Your task to perform on an android device: Go to calendar. Show me events next week Image 0: 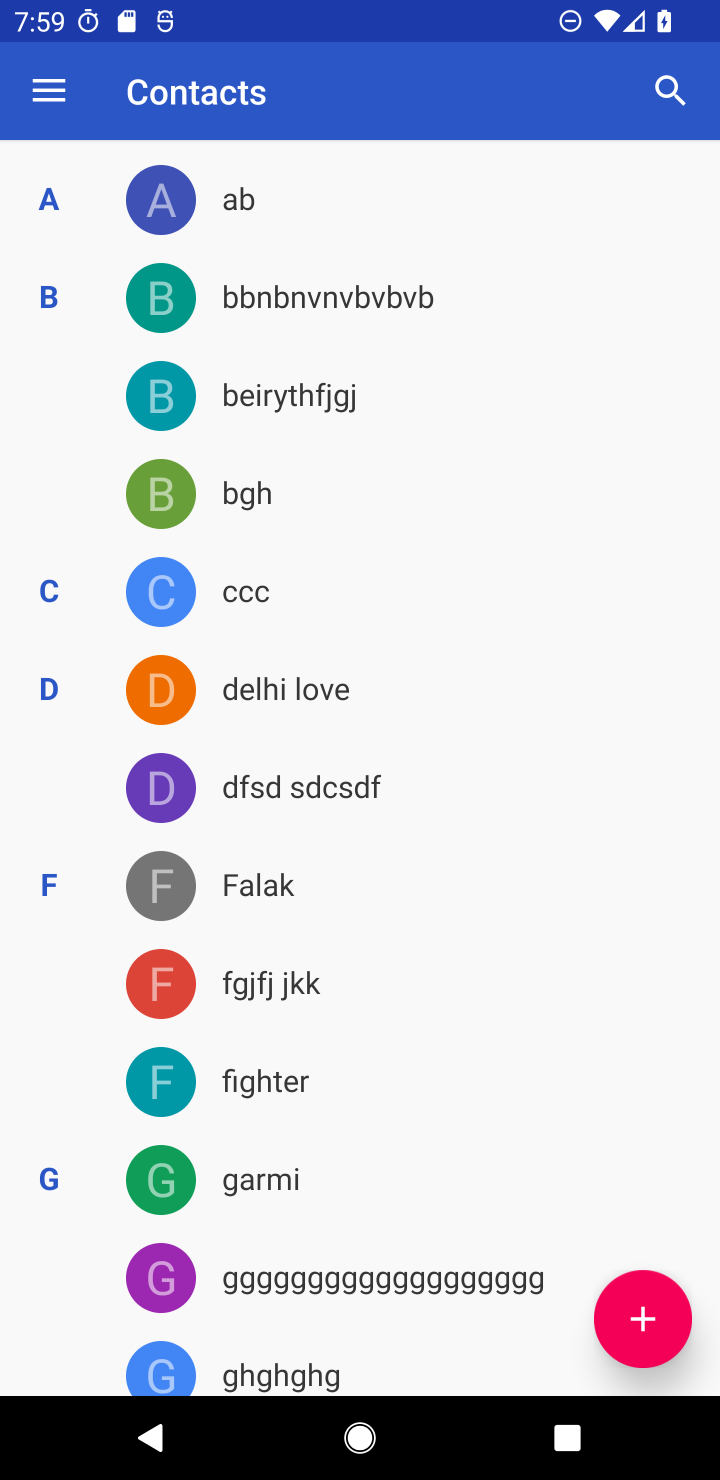
Step 0: press home button
Your task to perform on an android device: Go to calendar. Show me events next week Image 1: 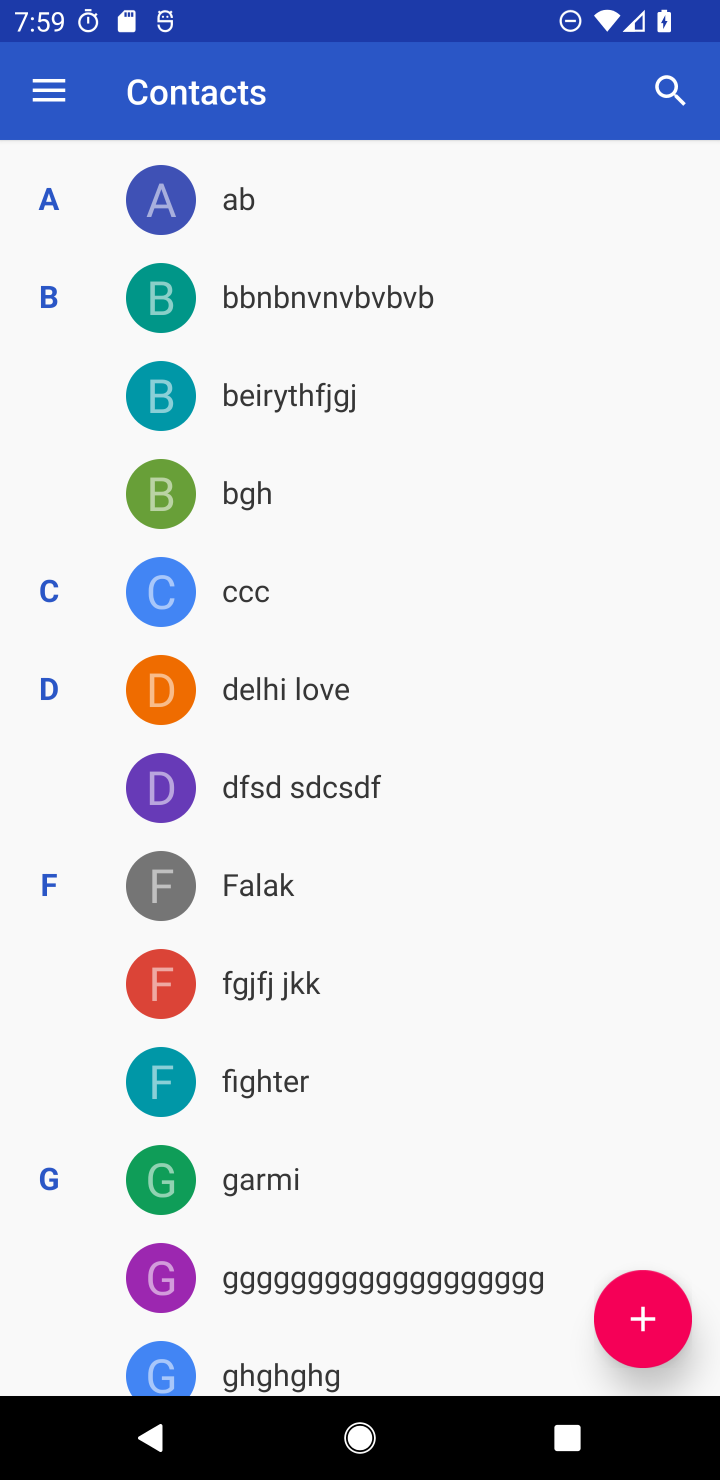
Step 1: press home button
Your task to perform on an android device: Go to calendar. Show me events next week Image 2: 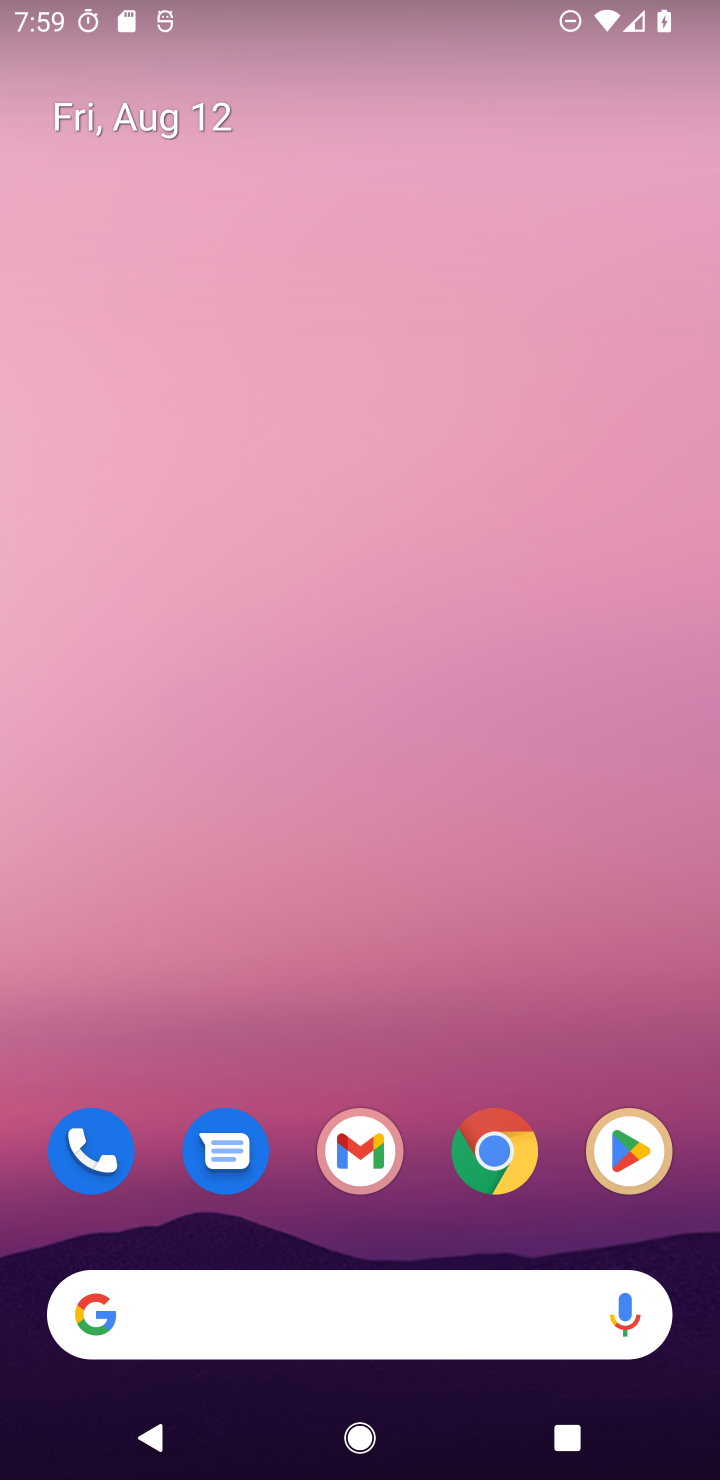
Step 2: drag from (476, 1040) to (574, 0)
Your task to perform on an android device: Go to calendar. Show me events next week Image 3: 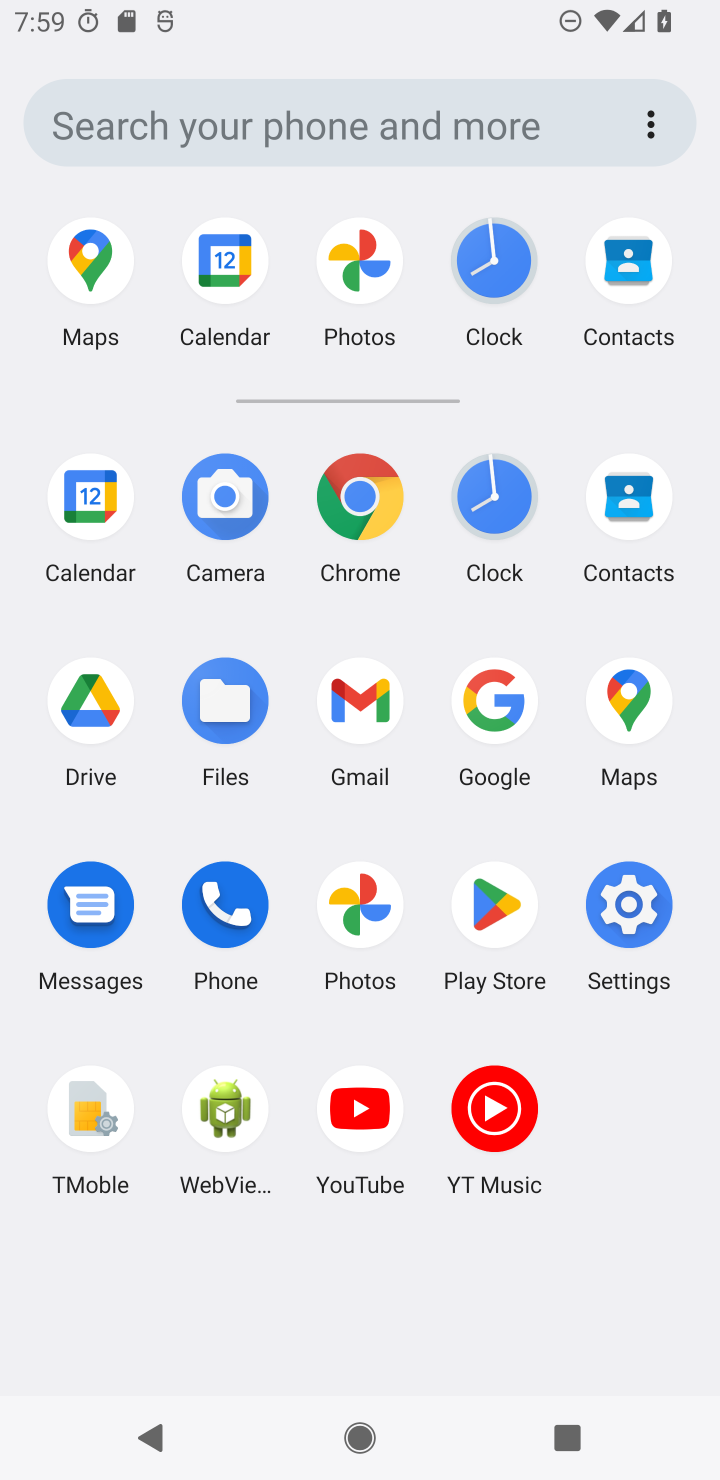
Step 3: click (241, 269)
Your task to perform on an android device: Go to calendar. Show me events next week Image 4: 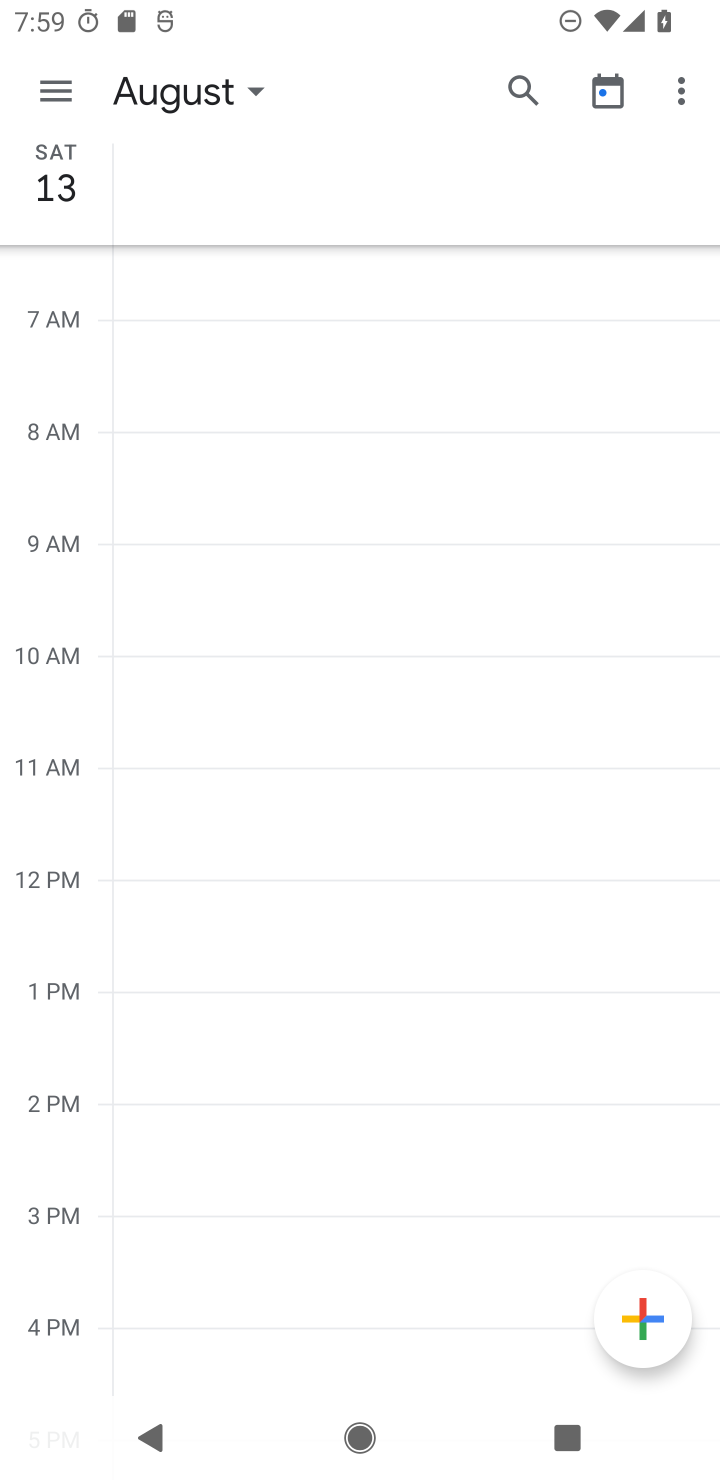
Step 4: click (158, 85)
Your task to perform on an android device: Go to calendar. Show me events next week Image 5: 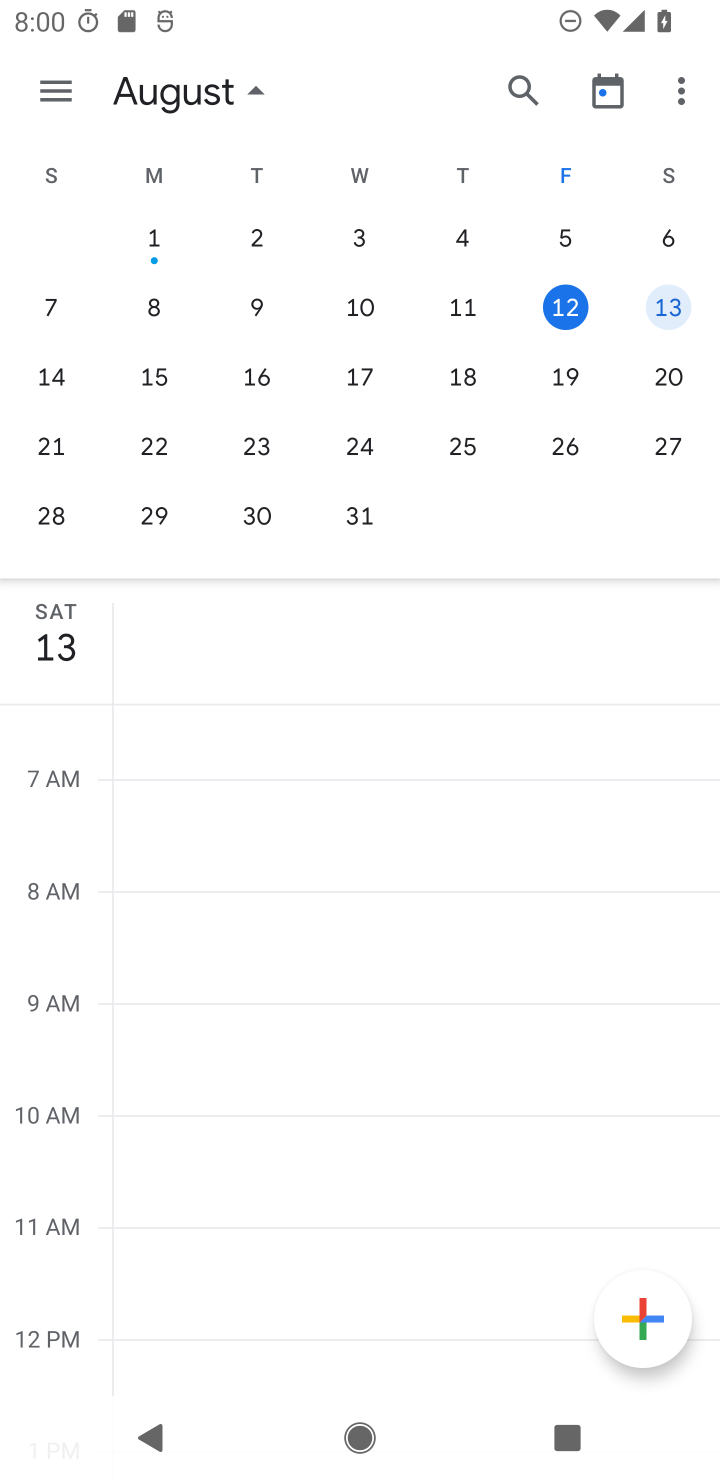
Step 5: click (273, 365)
Your task to perform on an android device: Go to calendar. Show me events next week Image 6: 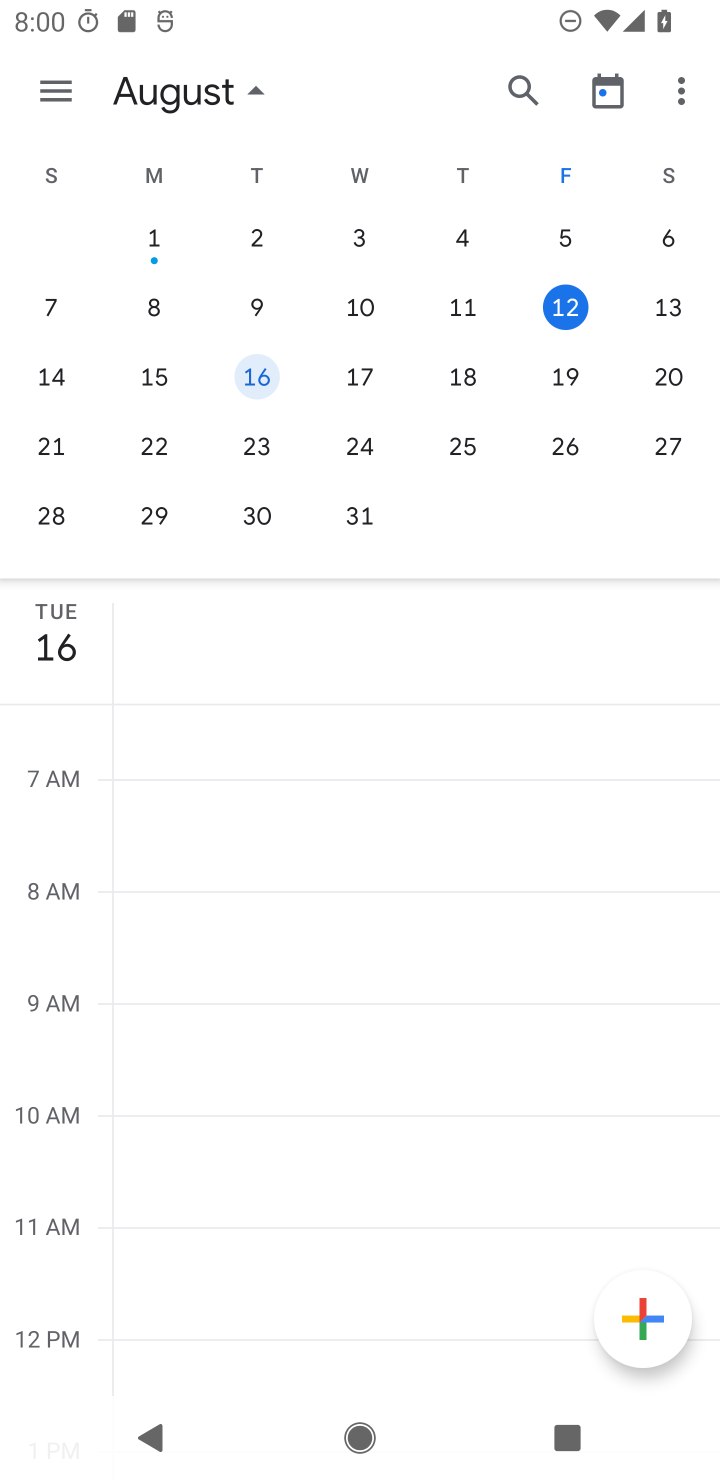
Step 6: click (82, 75)
Your task to perform on an android device: Go to calendar. Show me events next week Image 7: 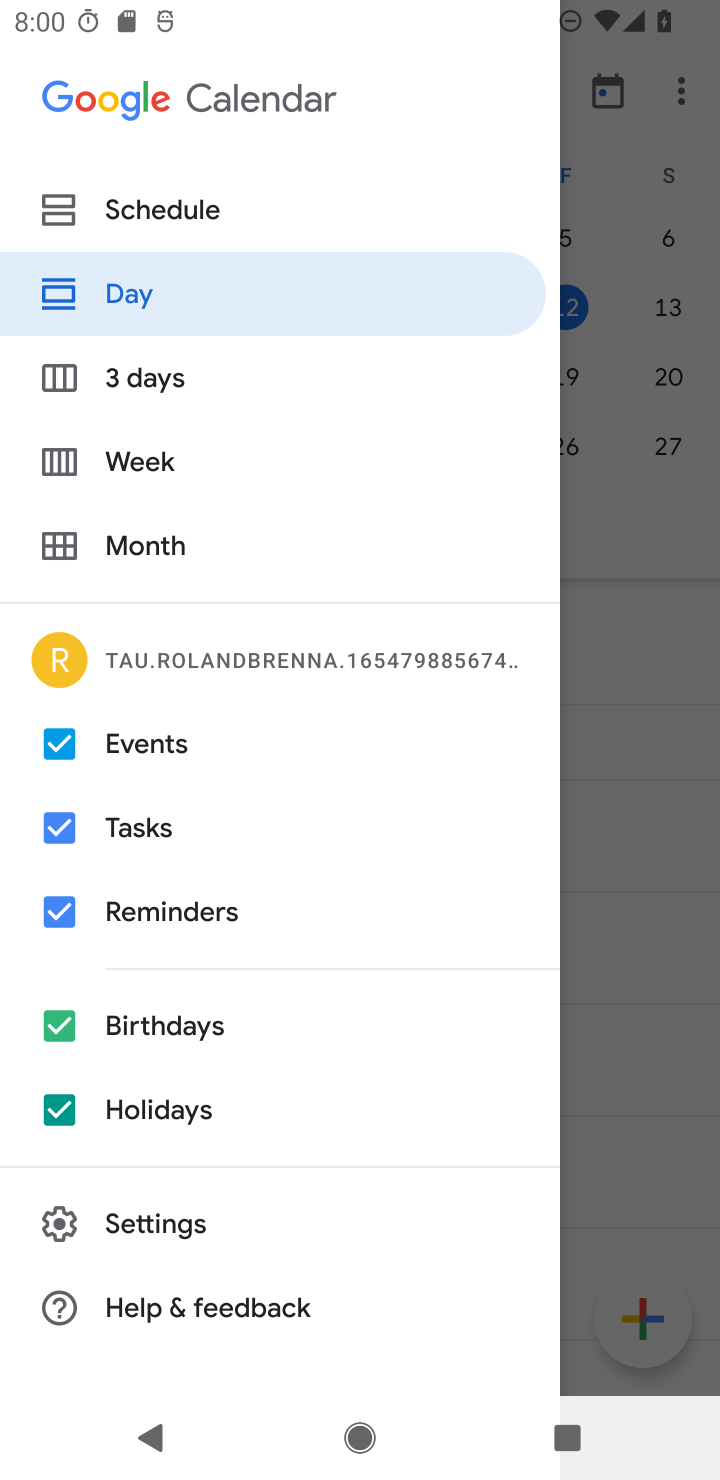
Step 7: click (146, 444)
Your task to perform on an android device: Go to calendar. Show me events next week Image 8: 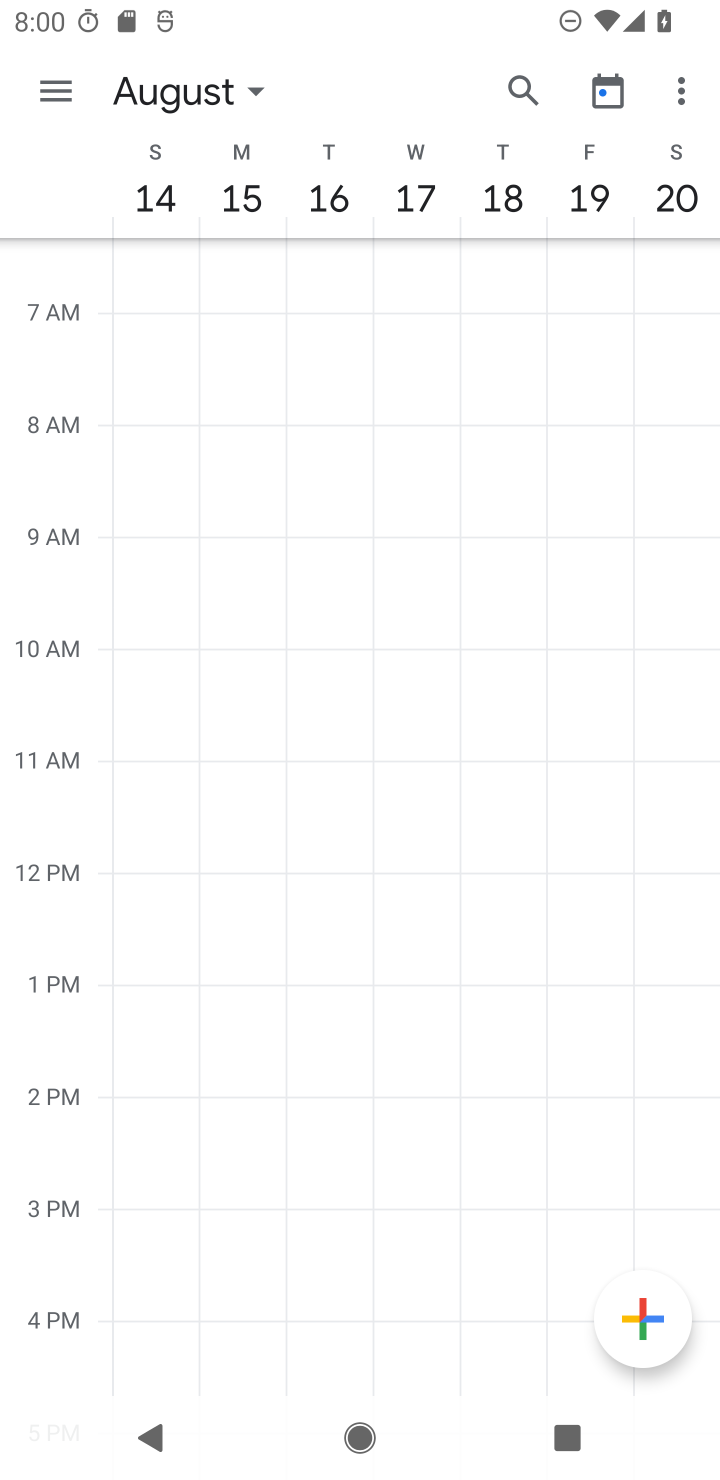
Step 8: task complete